Your task to perform on an android device: Search for "corsair k70" on bestbuy, select the first entry, add it to the cart, then select checkout. Image 0: 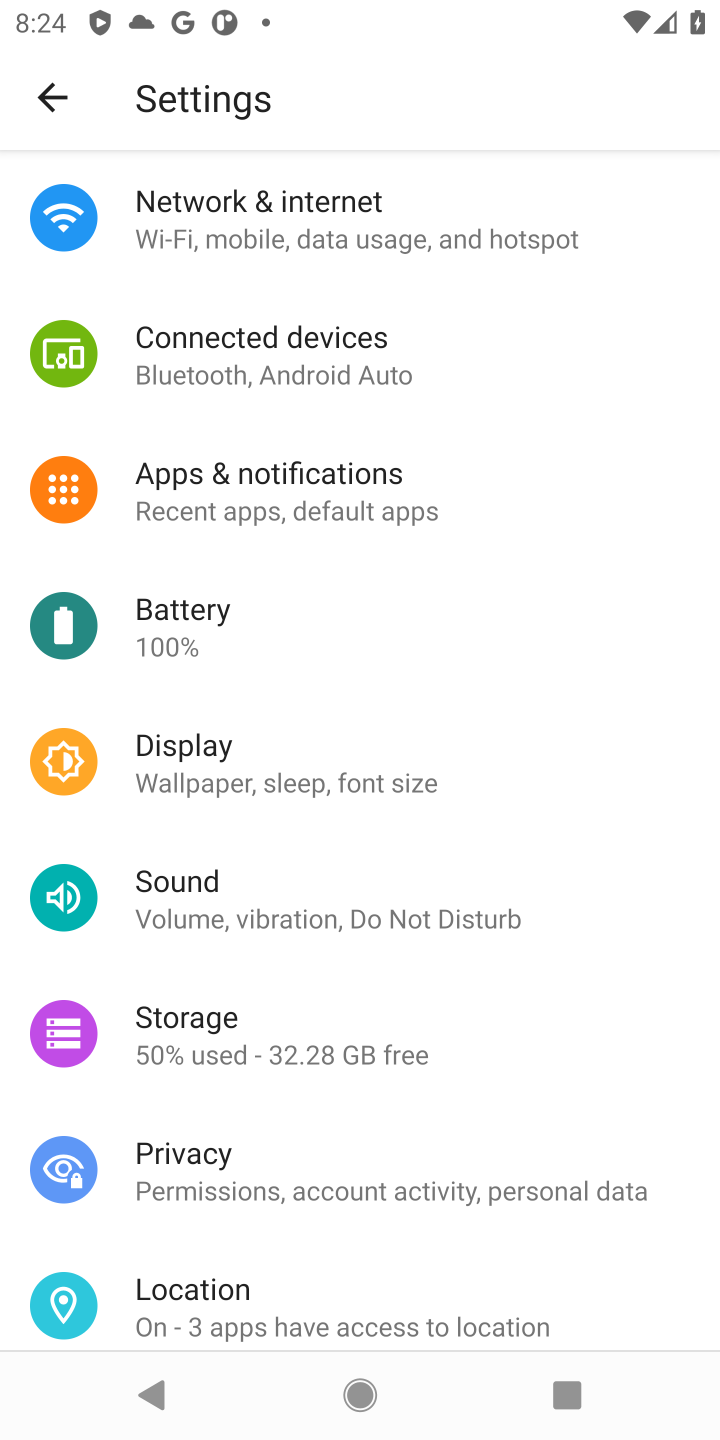
Step 0: press home button
Your task to perform on an android device: Search for "corsair k70" on bestbuy, select the first entry, add it to the cart, then select checkout. Image 1: 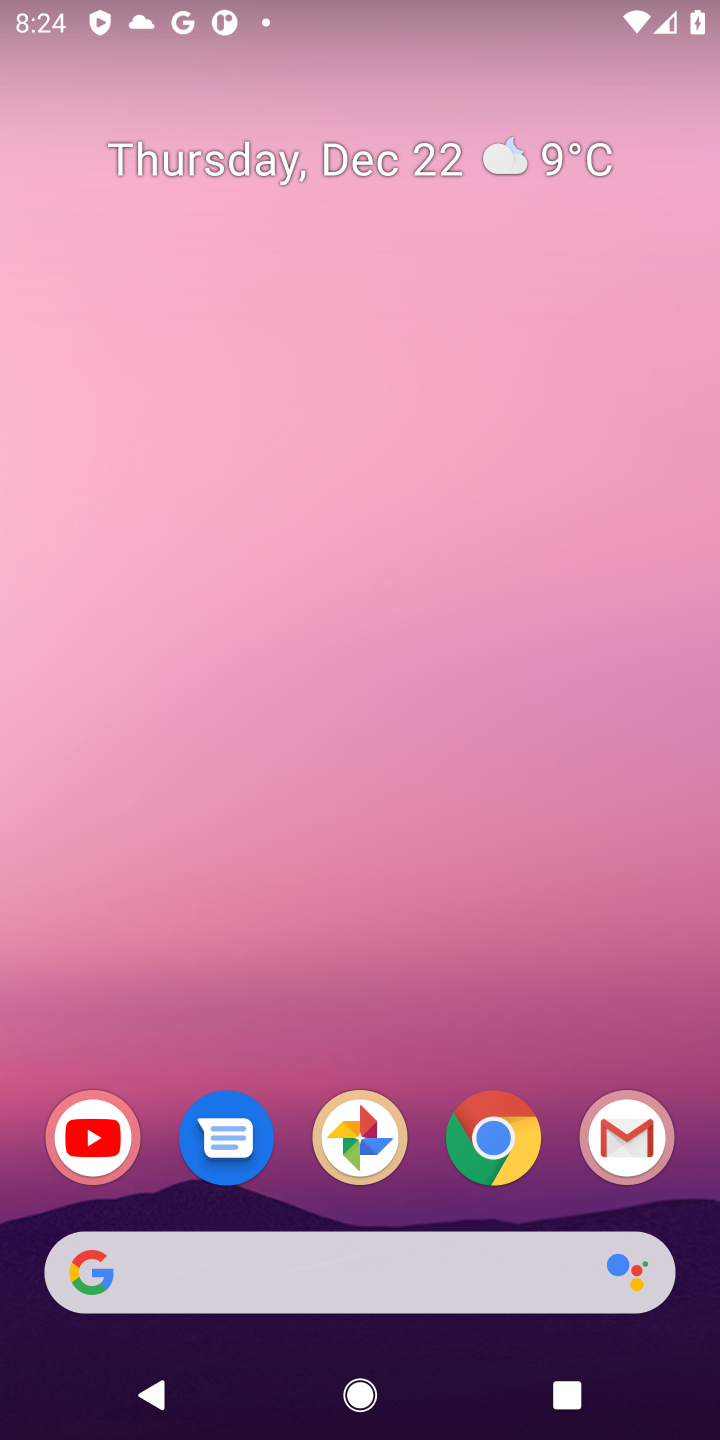
Step 1: click (489, 1148)
Your task to perform on an android device: Search for "corsair k70" on bestbuy, select the first entry, add it to the cart, then select checkout. Image 2: 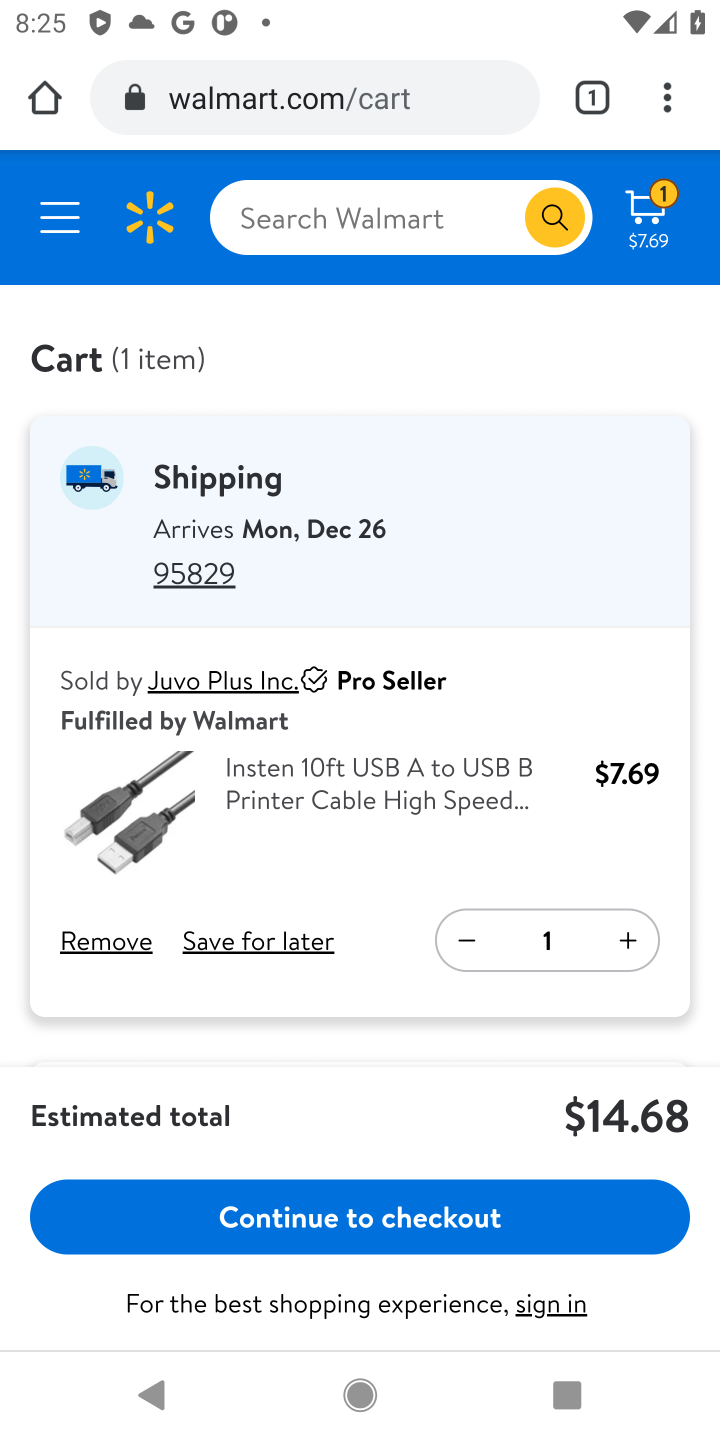
Step 2: click (311, 98)
Your task to perform on an android device: Search for "corsair k70" on bestbuy, select the first entry, add it to the cart, then select checkout. Image 3: 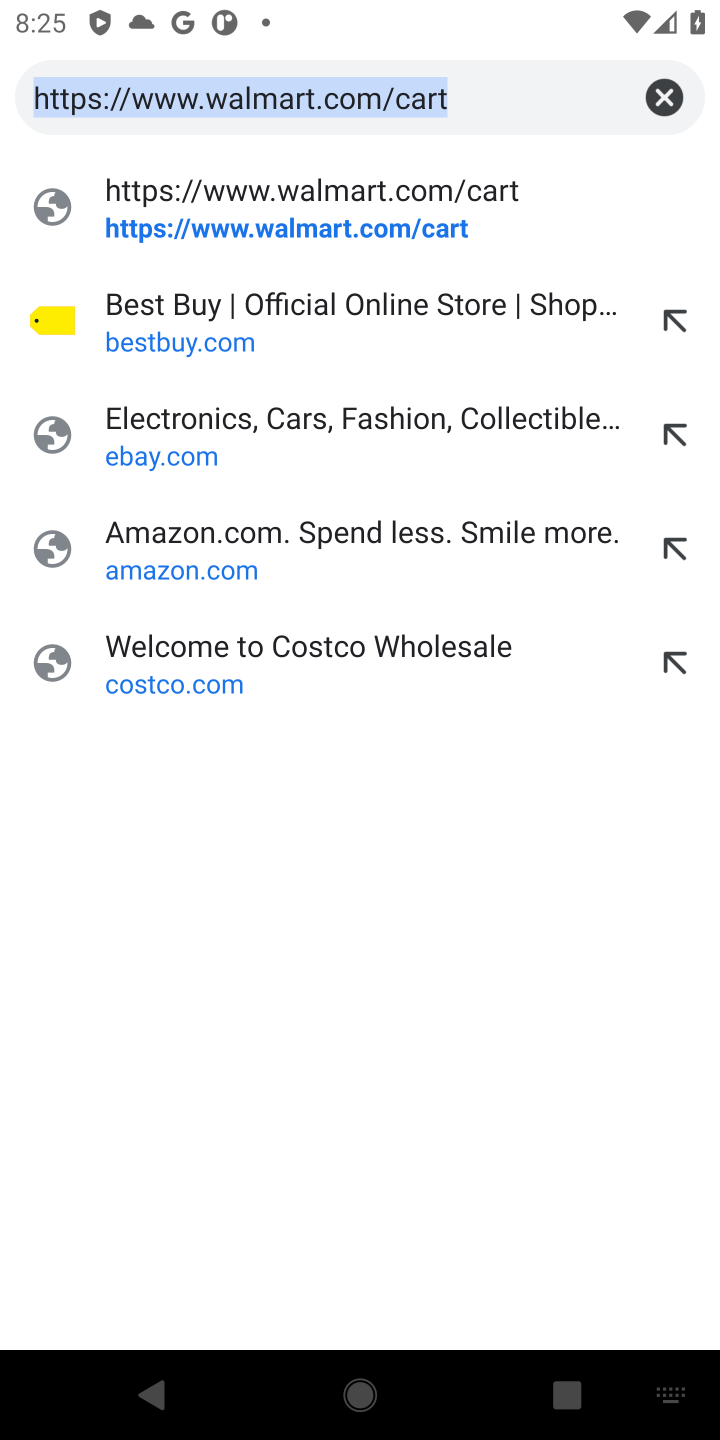
Step 3: click (295, 309)
Your task to perform on an android device: Search for "corsair k70" on bestbuy, select the first entry, add it to the cart, then select checkout. Image 4: 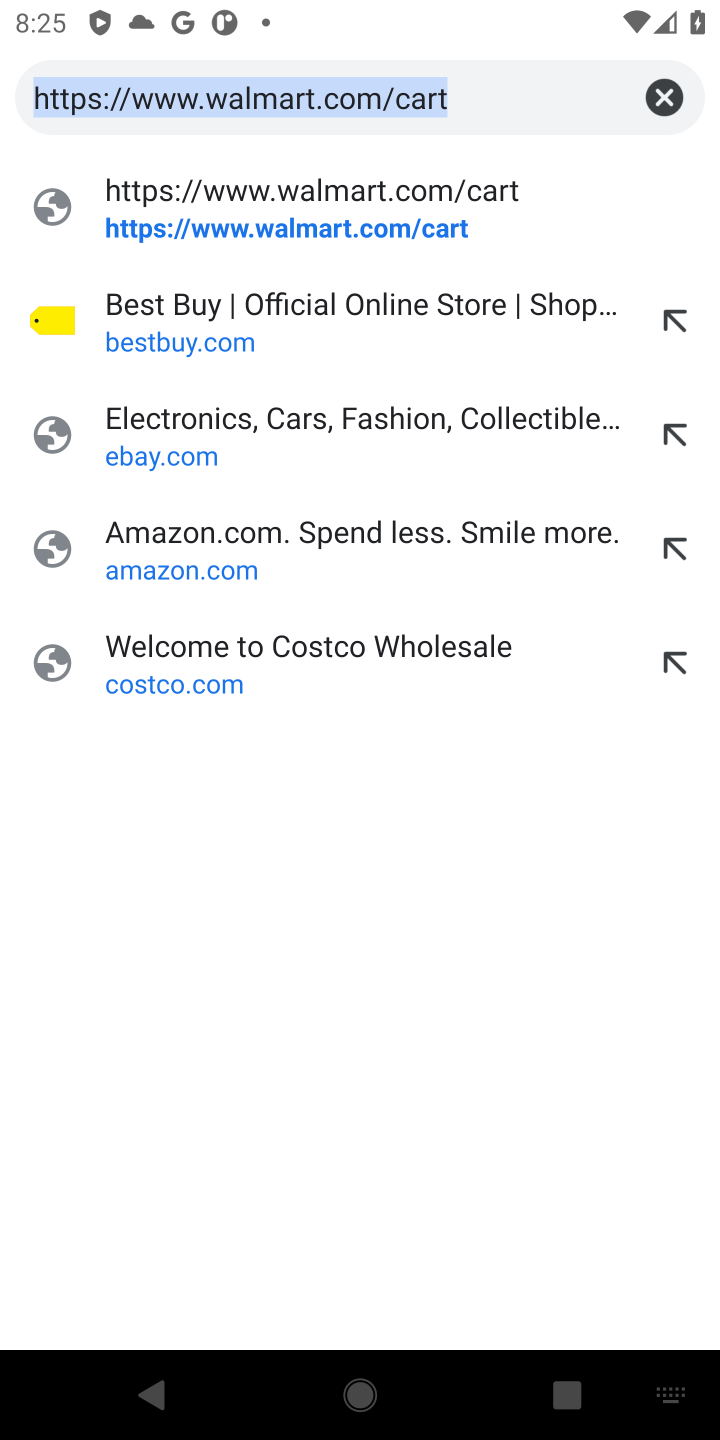
Step 4: click (175, 335)
Your task to perform on an android device: Search for "corsair k70" on bestbuy, select the first entry, add it to the cart, then select checkout. Image 5: 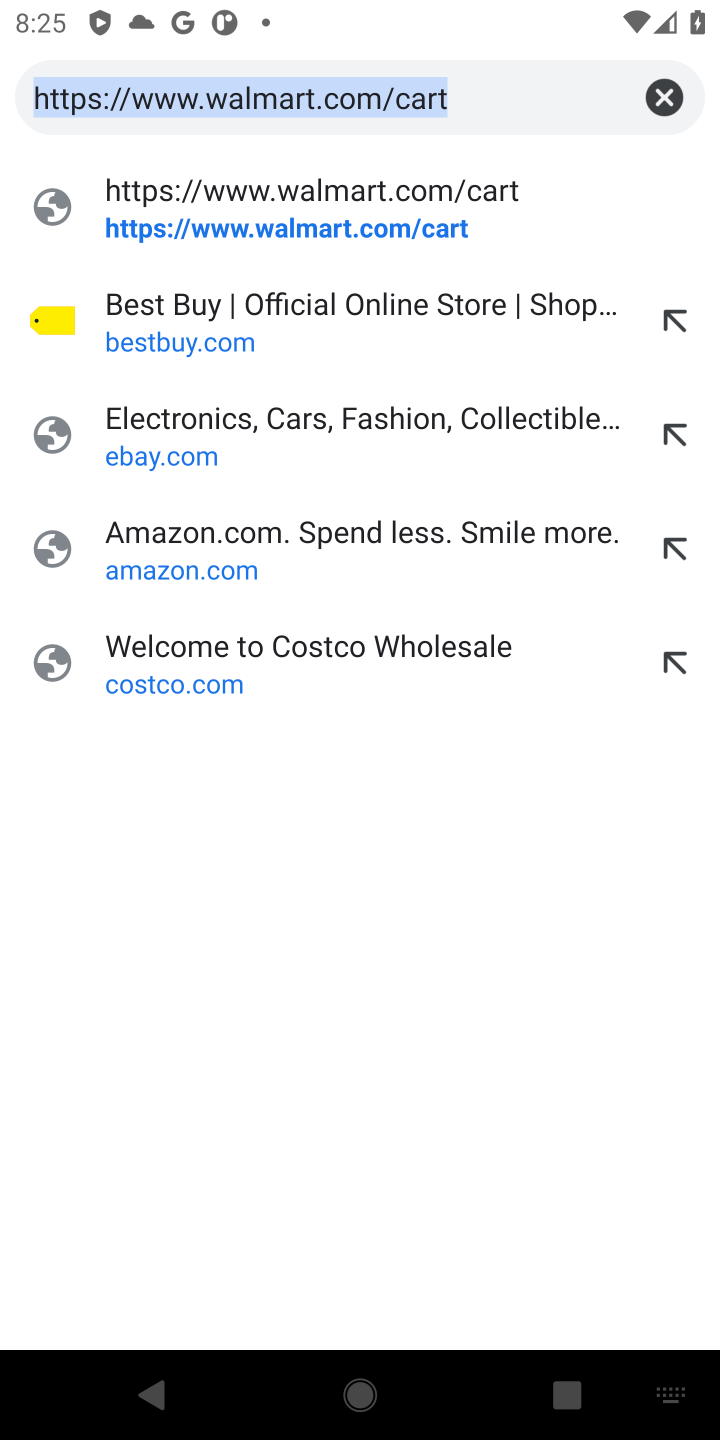
Step 5: click (195, 345)
Your task to perform on an android device: Search for "corsair k70" on bestbuy, select the first entry, add it to the cart, then select checkout. Image 6: 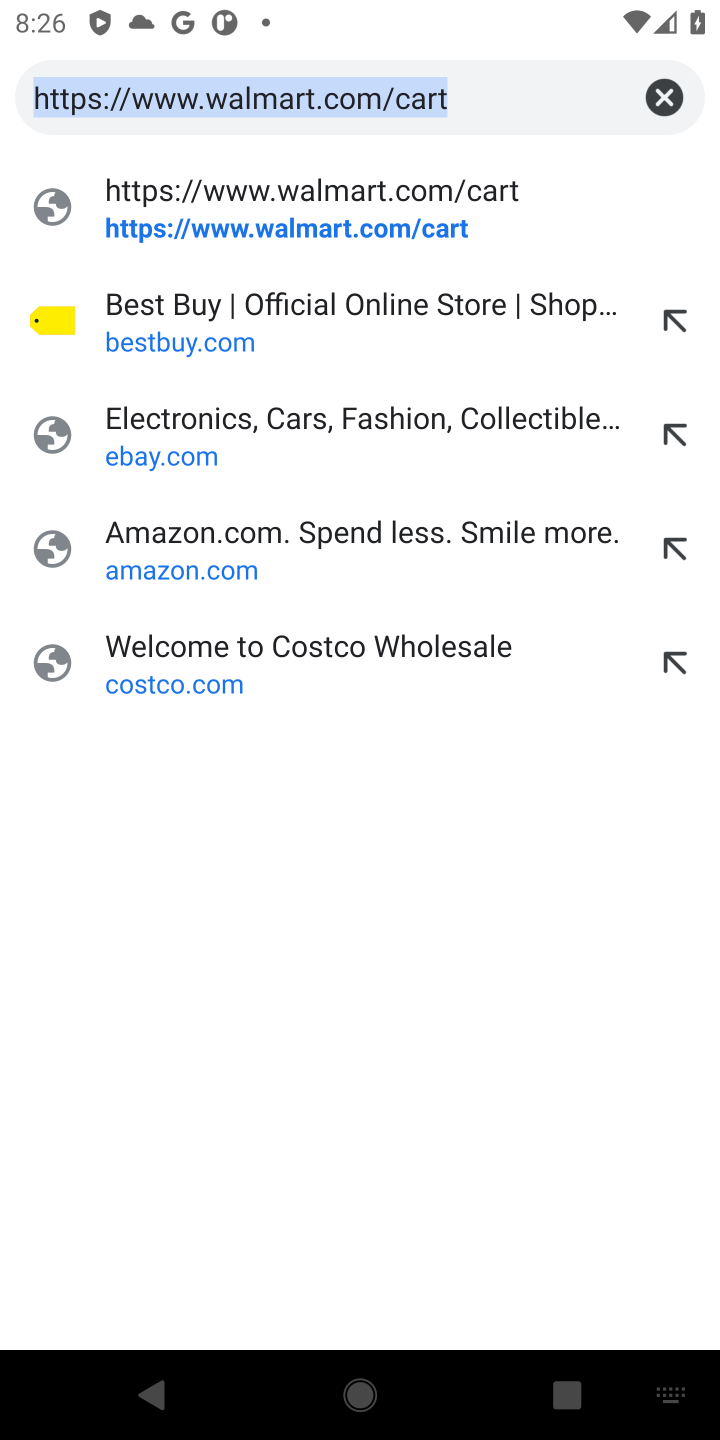
Step 6: click (222, 334)
Your task to perform on an android device: Search for "corsair k70" on bestbuy, select the first entry, add it to the cart, then select checkout. Image 7: 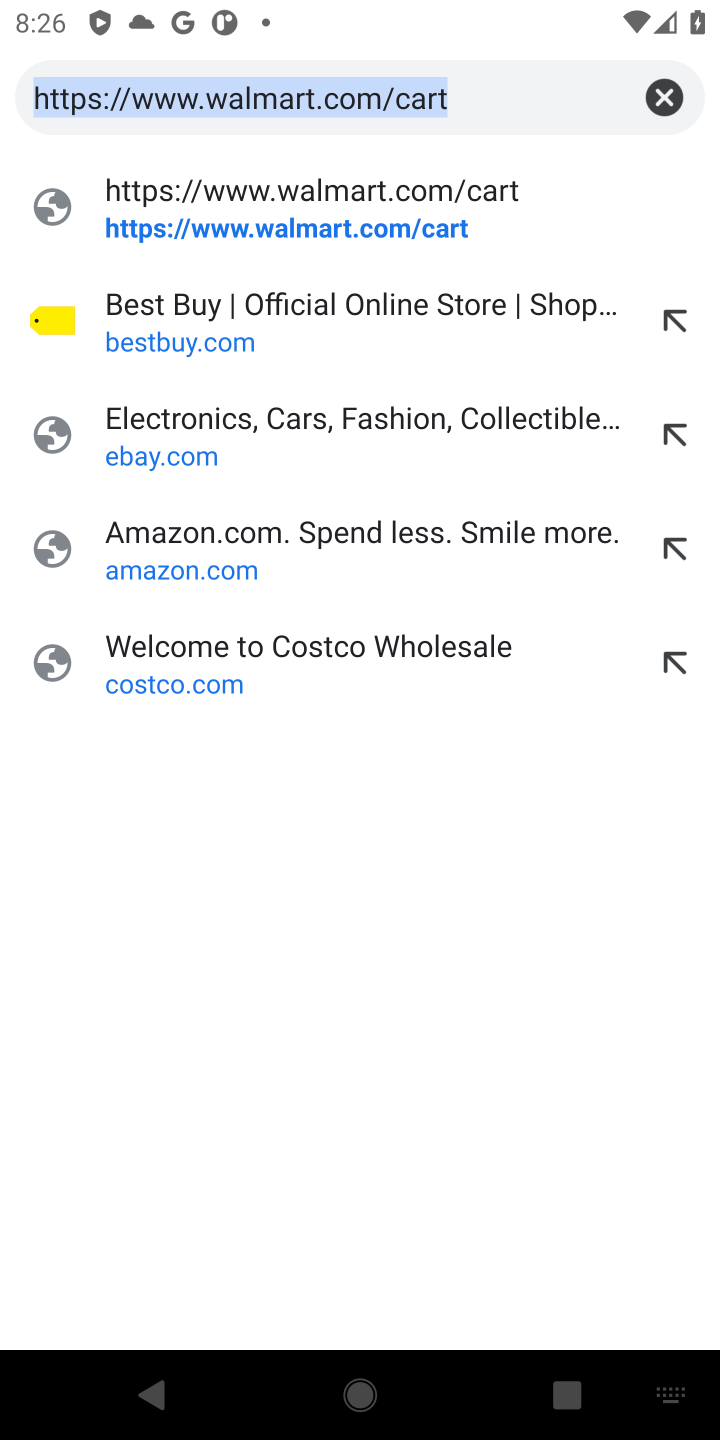
Step 7: click (230, 329)
Your task to perform on an android device: Search for "corsair k70" on bestbuy, select the first entry, add it to the cart, then select checkout. Image 8: 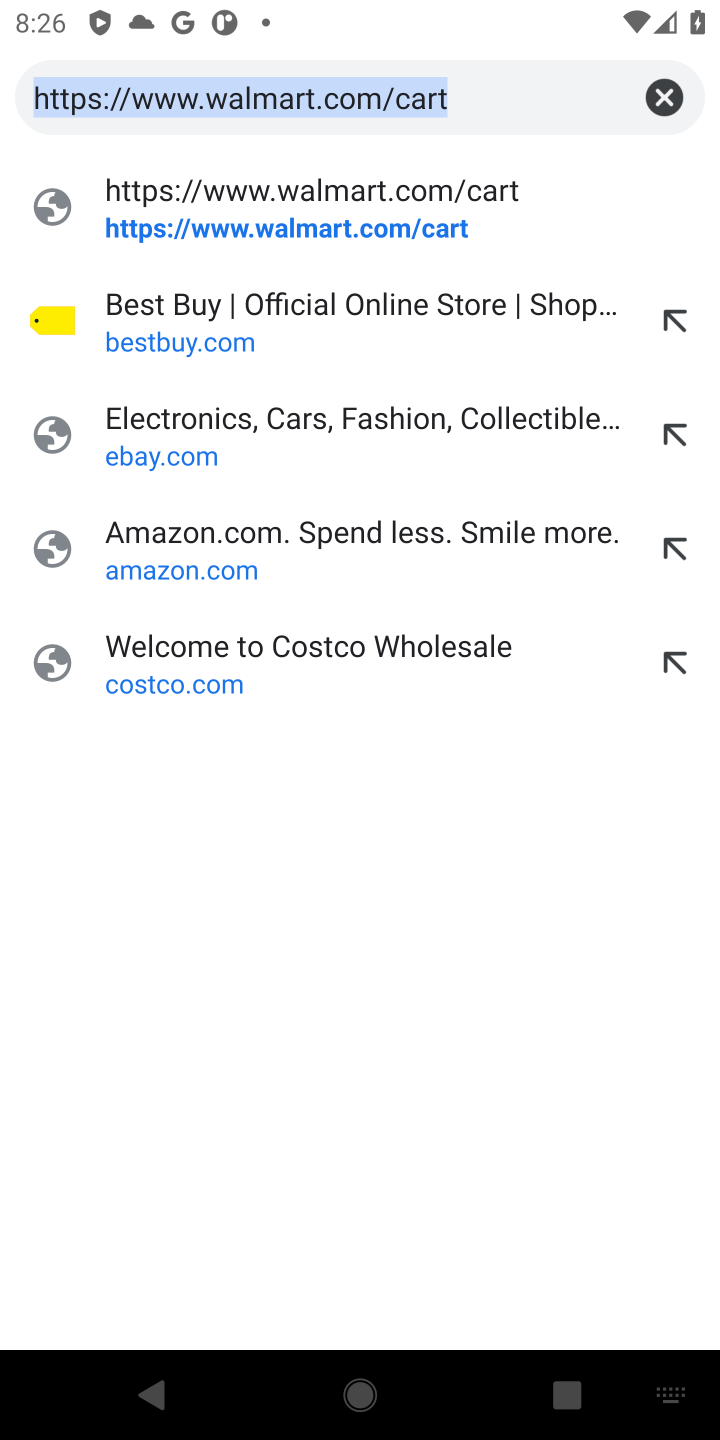
Step 8: click (230, 329)
Your task to perform on an android device: Search for "corsair k70" on bestbuy, select the first entry, add it to the cart, then select checkout. Image 9: 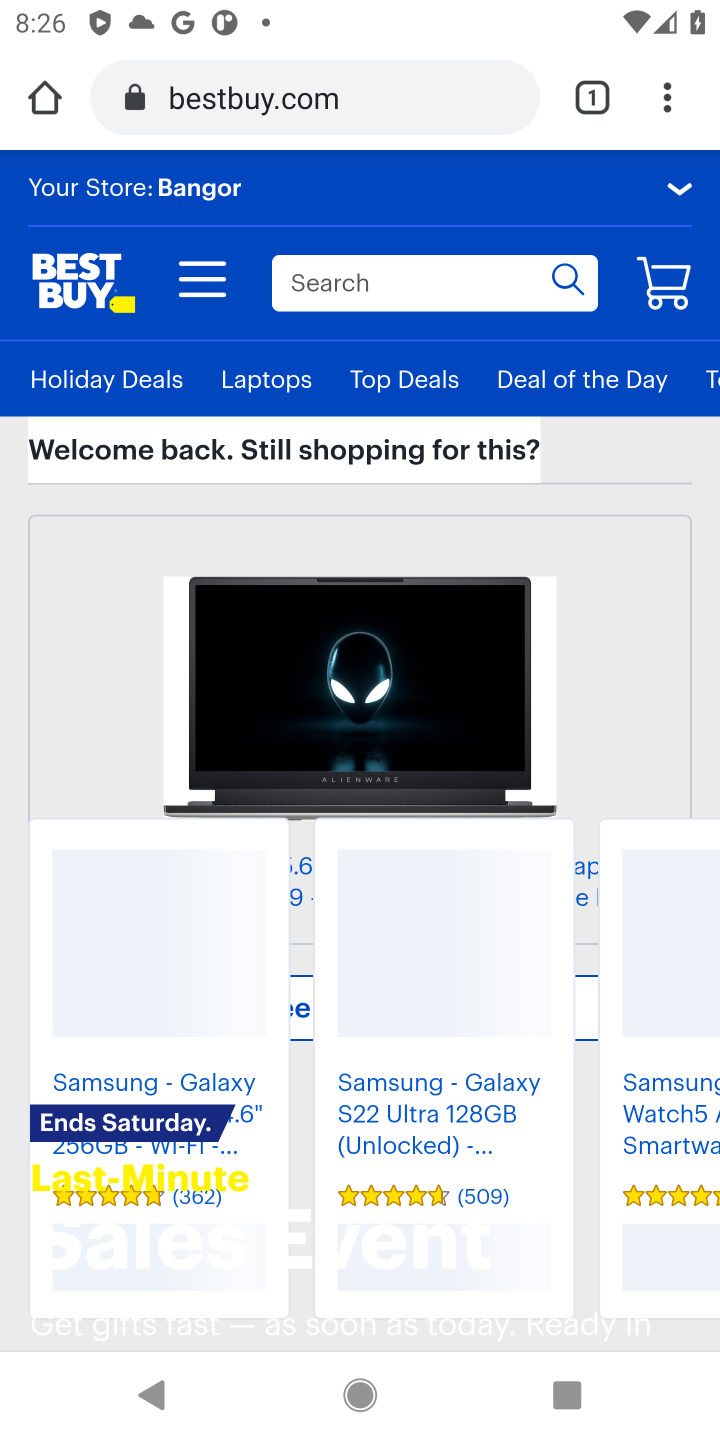
Step 9: click (402, 280)
Your task to perform on an android device: Search for "corsair k70" on bestbuy, select the first entry, add it to the cart, then select checkout. Image 10: 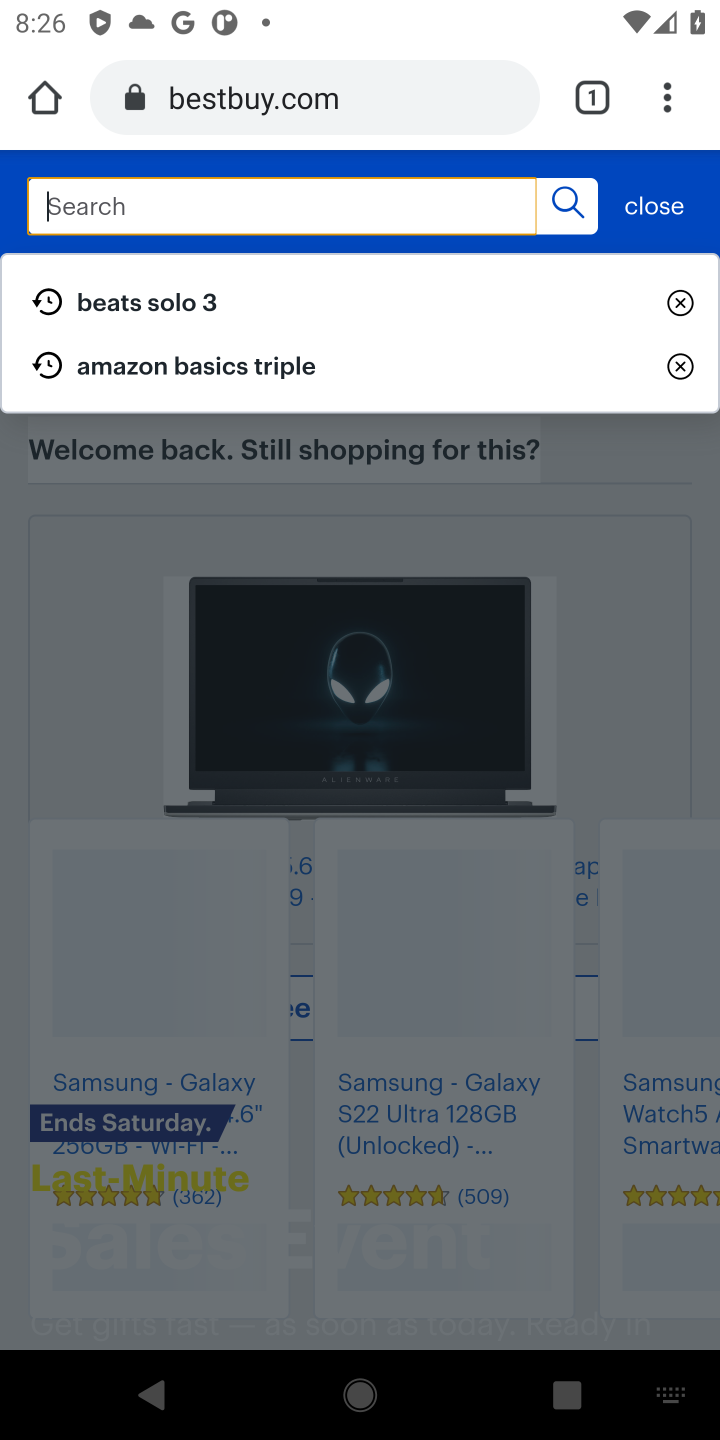
Step 10: type "corsair k70"
Your task to perform on an android device: Search for "corsair k70" on bestbuy, select the first entry, add it to the cart, then select checkout. Image 11: 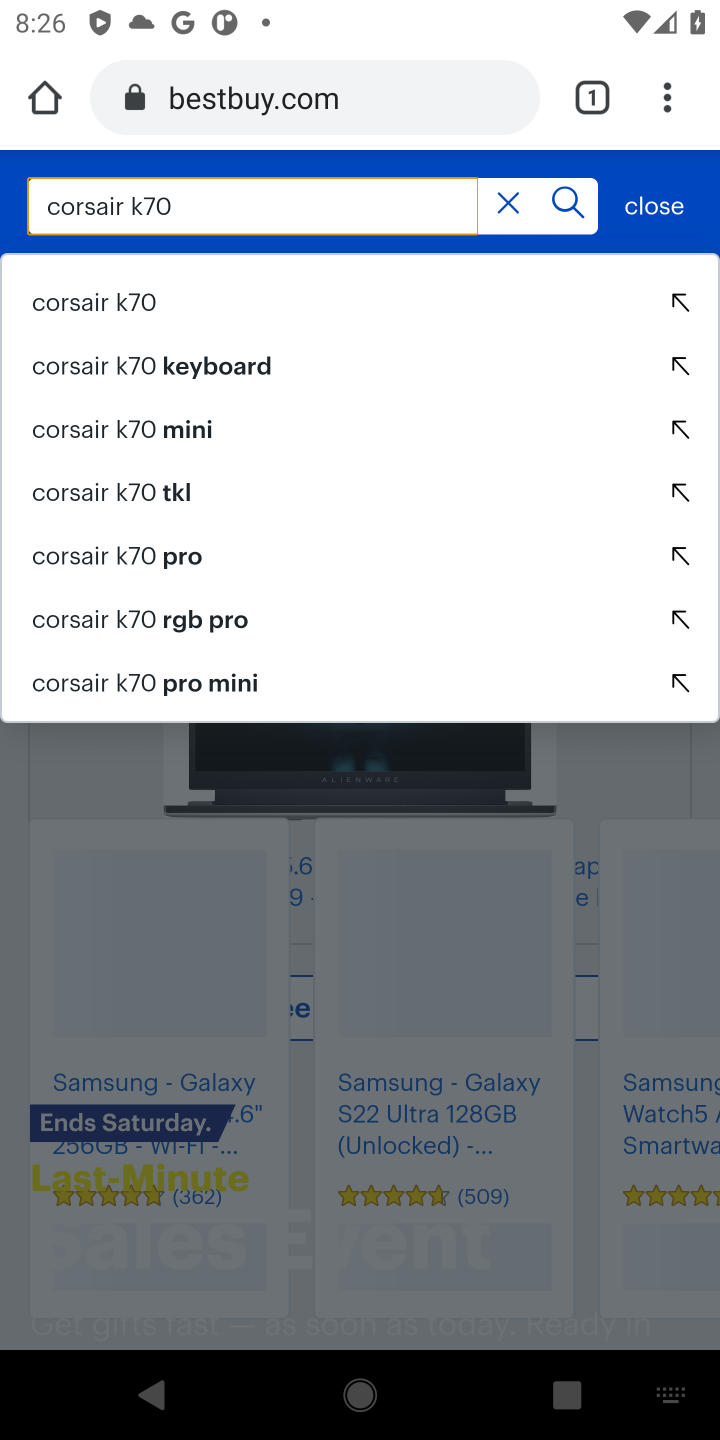
Step 11: click (565, 218)
Your task to perform on an android device: Search for "corsair k70" on bestbuy, select the first entry, add it to the cart, then select checkout. Image 12: 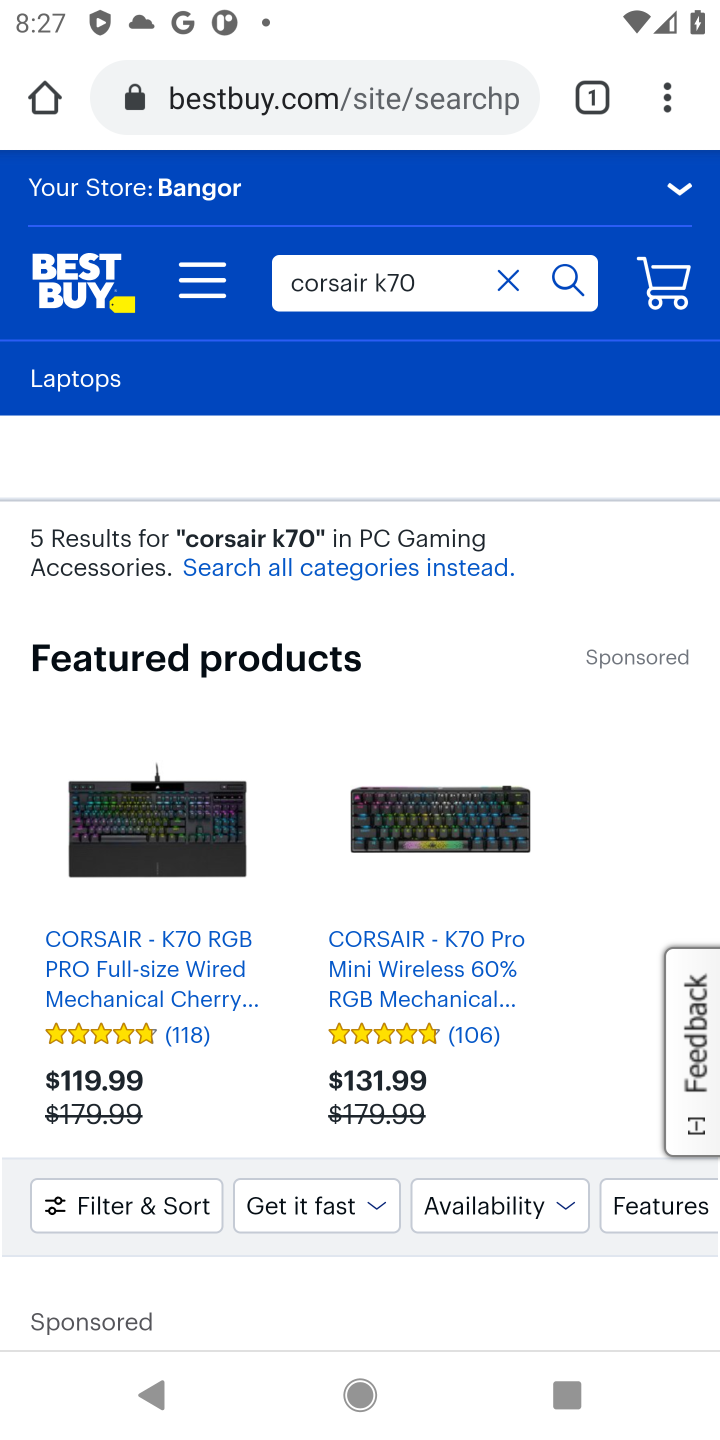
Step 12: drag from (451, 1083) to (498, 645)
Your task to perform on an android device: Search for "corsair k70" on bestbuy, select the first entry, add it to the cart, then select checkout. Image 13: 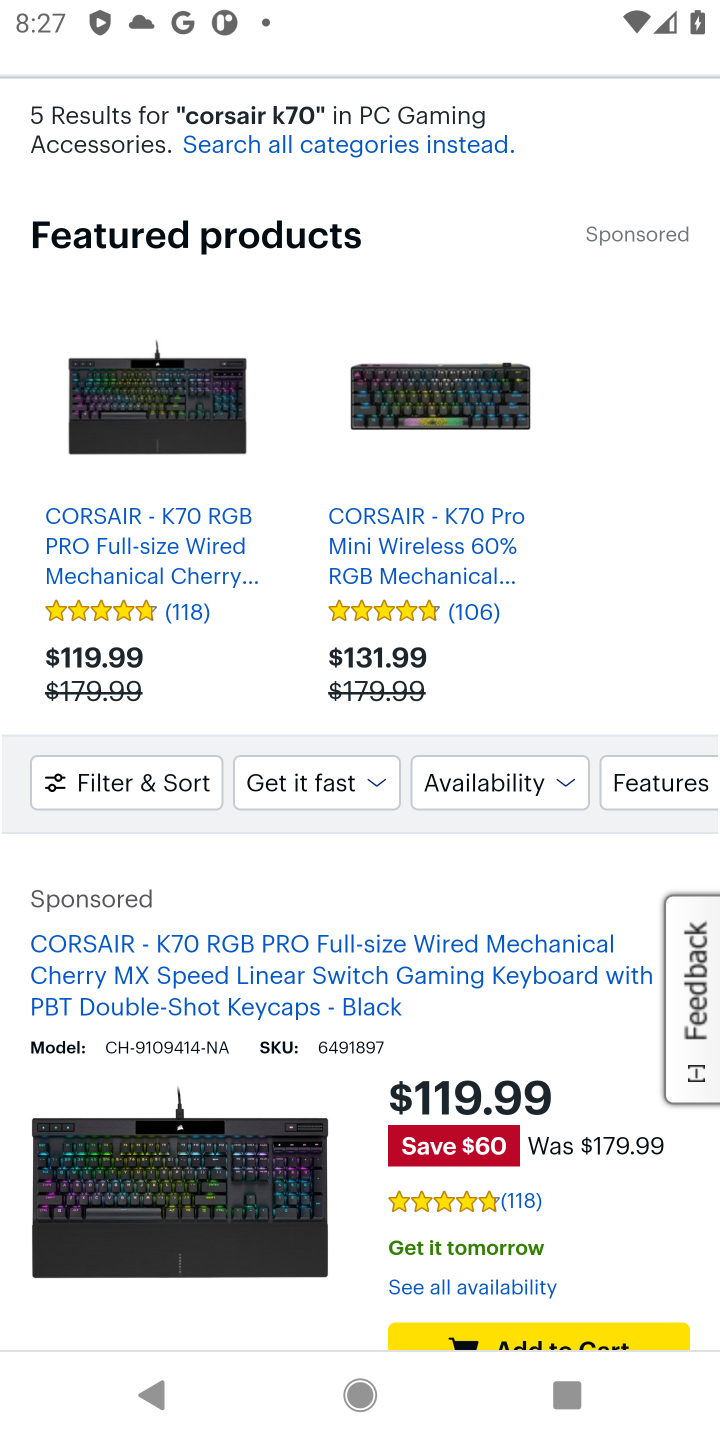
Step 13: drag from (533, 999) to (566, 571)
Your task to perform on an android device: Search for "corsair k70" on bestbuy, select the first entry, add it to the cart, then select checkout. Image 14: 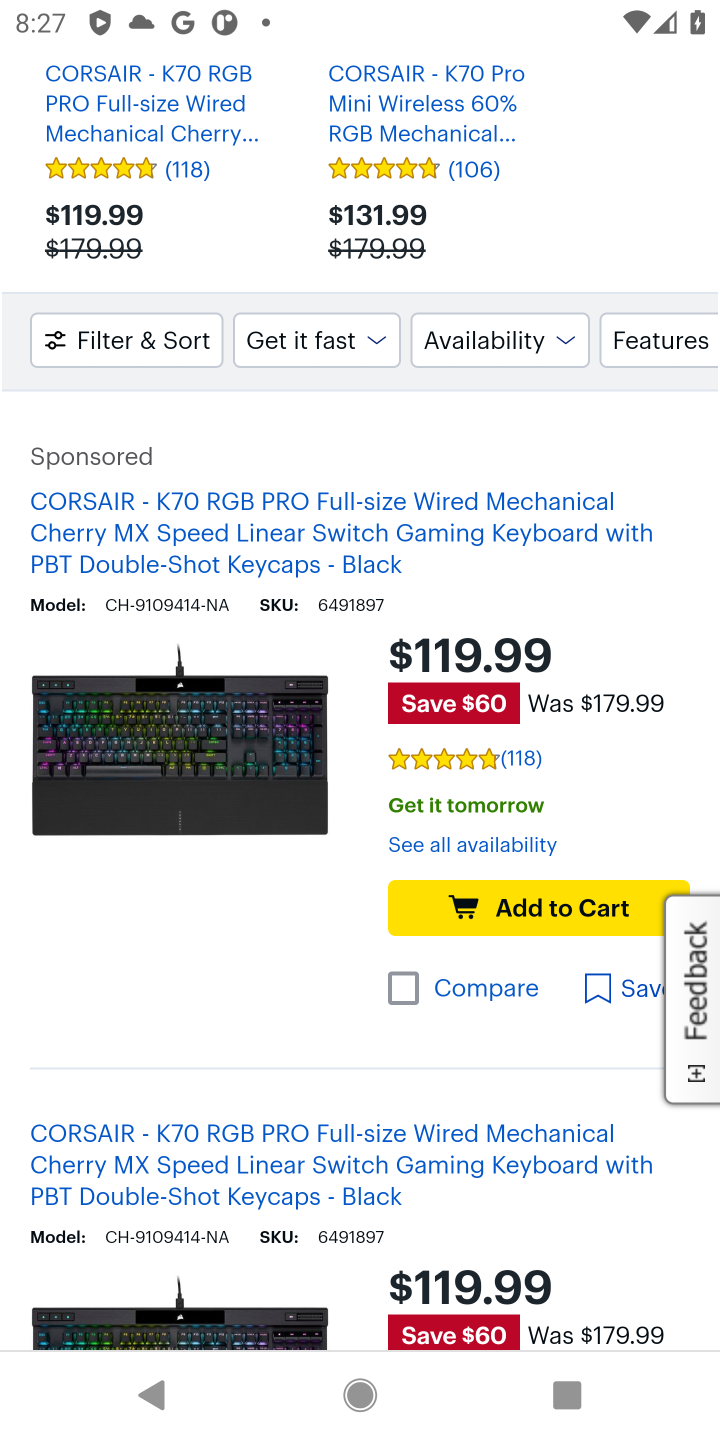
Step 14: click (480, 917)
Your task to perform on an android device: Search for "corsair k70" on bestbuy, select the first entry, add it to the cart, then select checkout. Image 15: 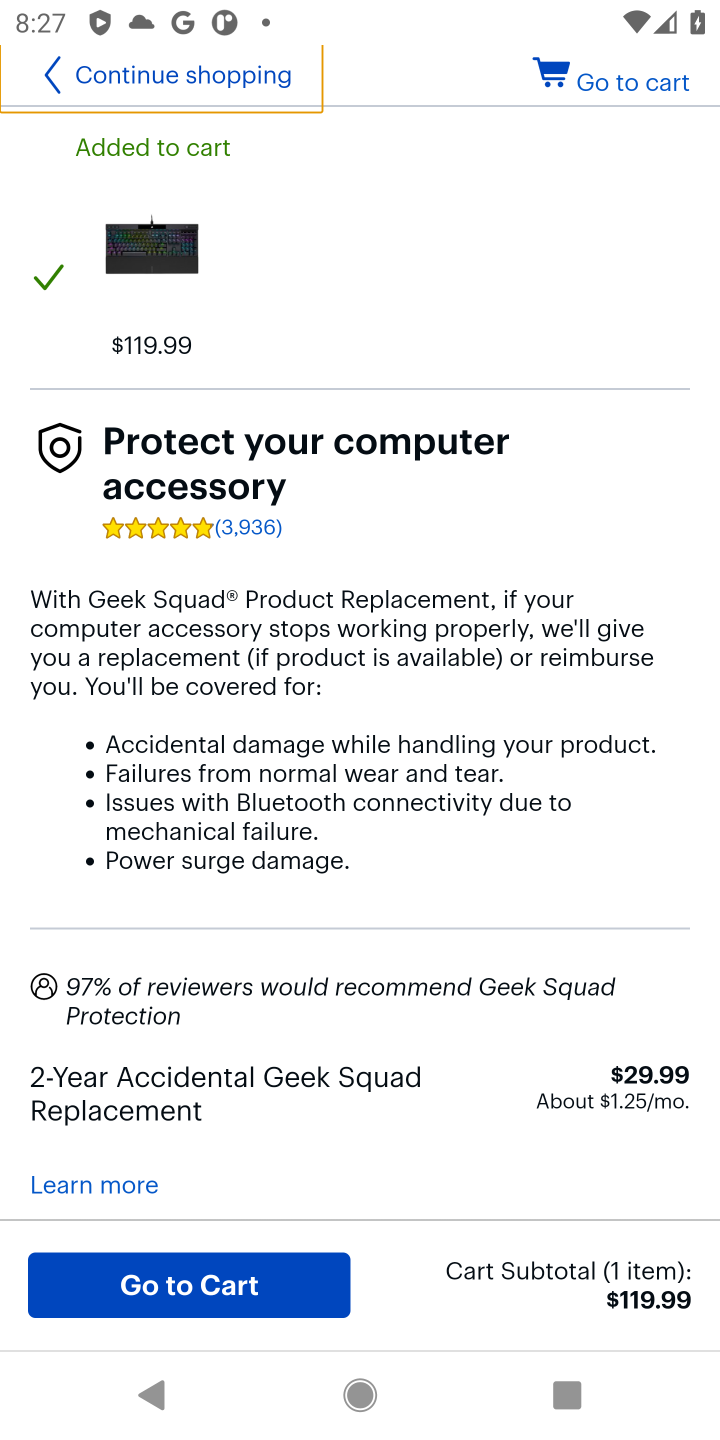
Step 15: click (191, 1290)
Your task to perform on an android device: Search for "corsair k70" on bestbuy, select the first entry, add it to the cart, then select checkout. Image 16: 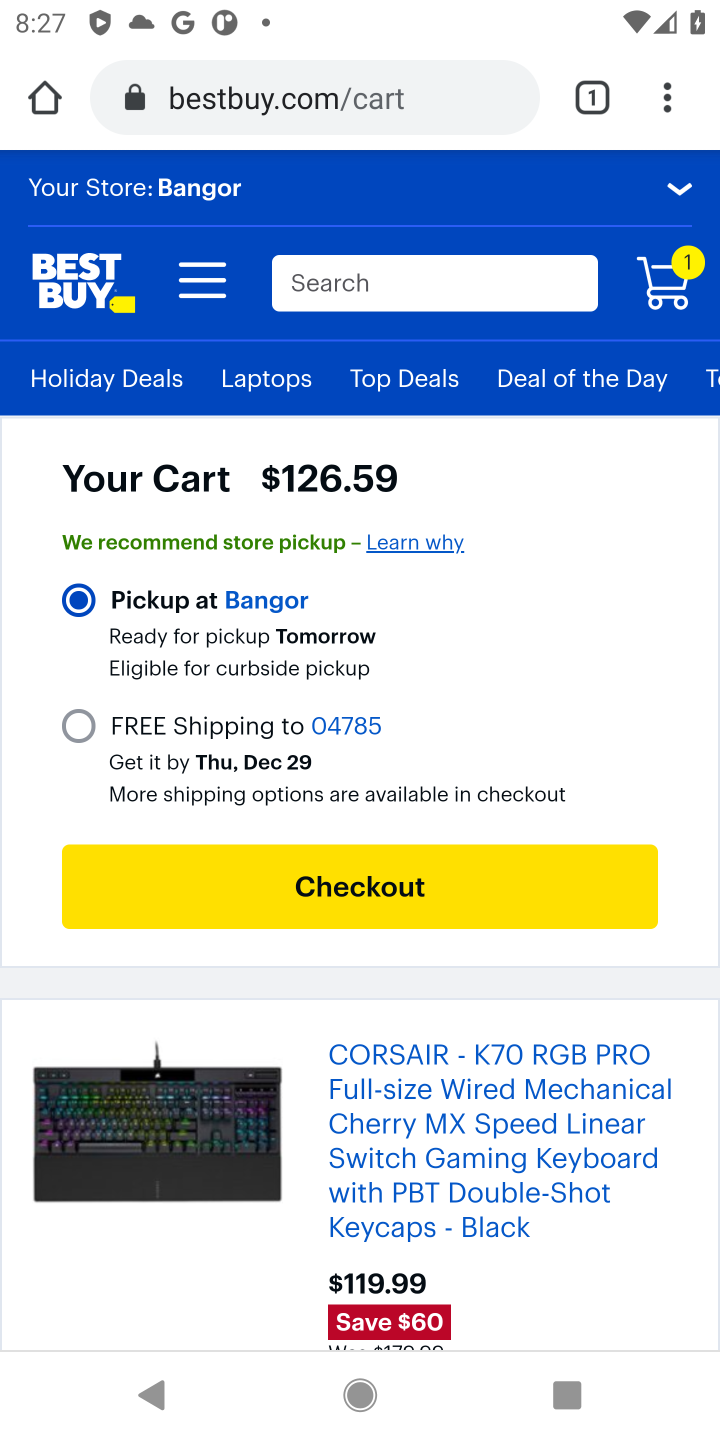
Step 16: click (323, 889)
Your task to perform on an android device: Search for "corsair k70" on bestbuy, select the first entry, add it to the cart, then select checkout. Image 17: 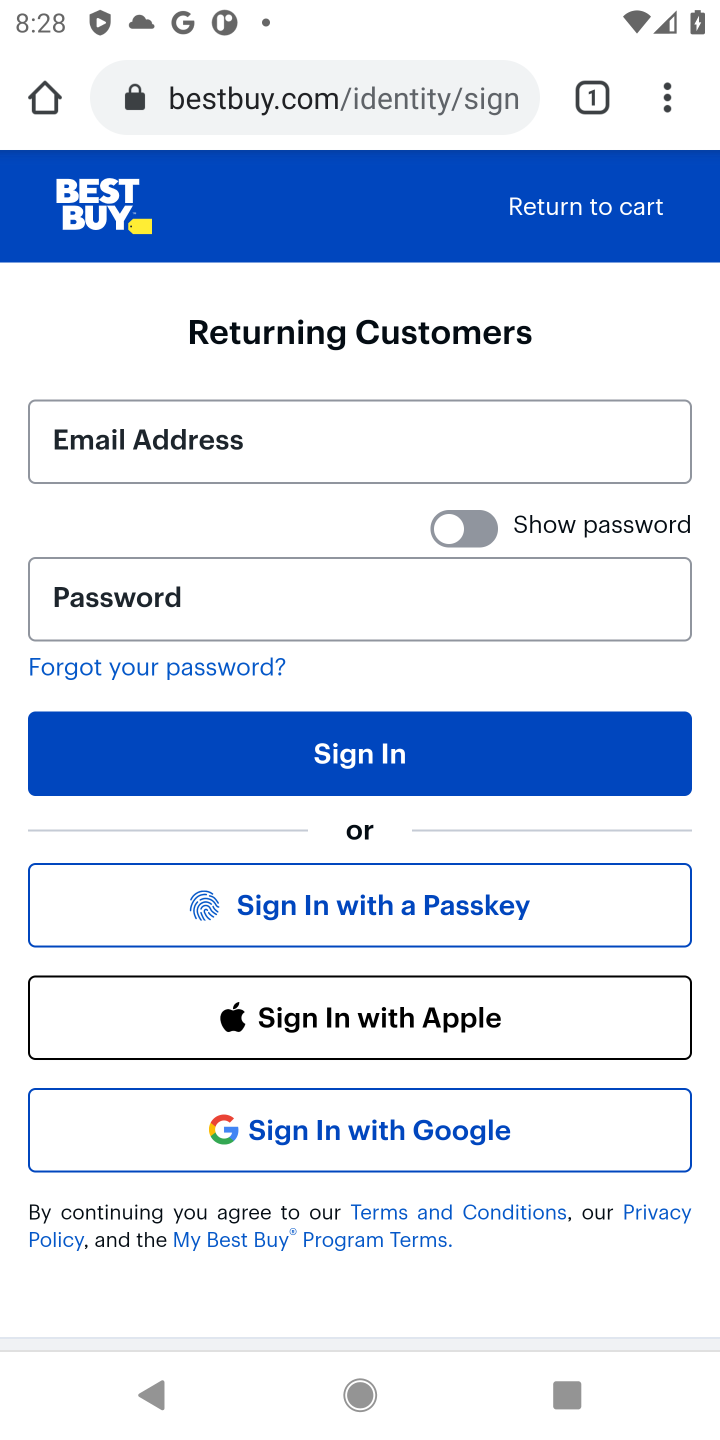
Step 17: task complete